Your task to perform on an android device: turn on sleep mode Image 0: 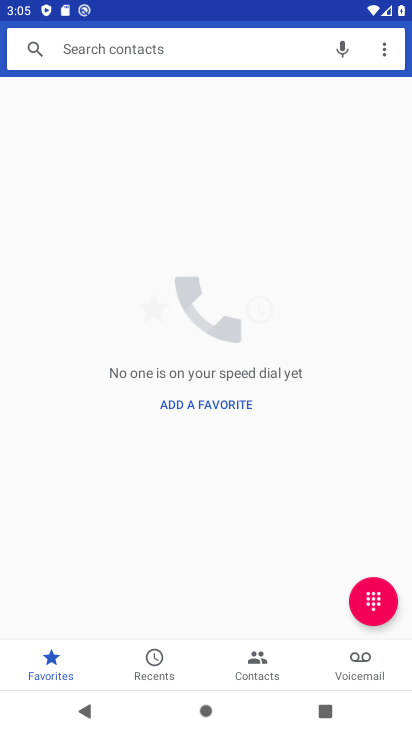
Step 0: press home button
Your task to perform on an android device: turn on sleep mode Image 1: 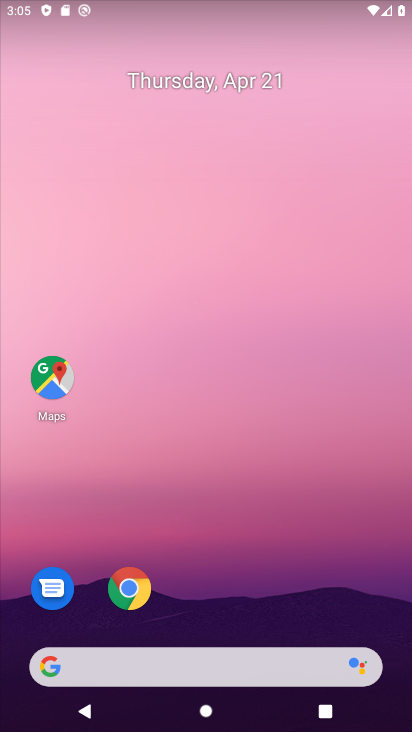
Step 1: drag from (171, 652) to (185, 6)
Your task to perform on an android device: turn on sleep mode Image 2: 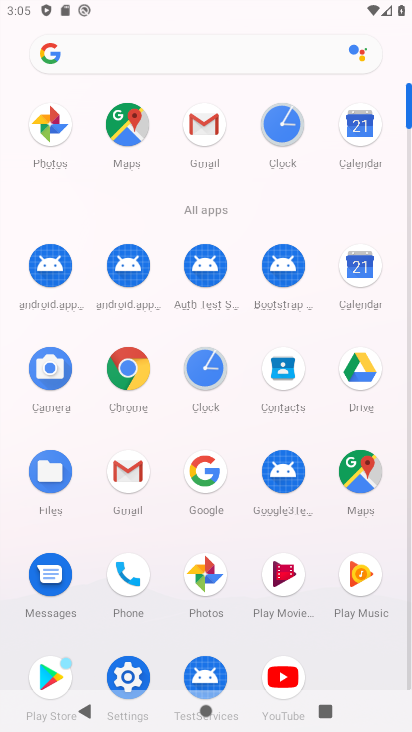
Step 2: drag from (140, 686) to (227, 657)
Your task to perform on an android device: turn on sleep mode Image 3: 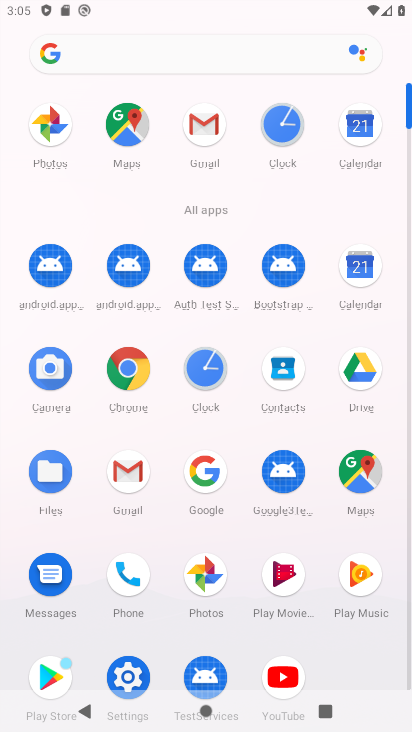
Step 3: click (123, 674)
Your task to perform on an android device: turn on sleep mode Image 4: 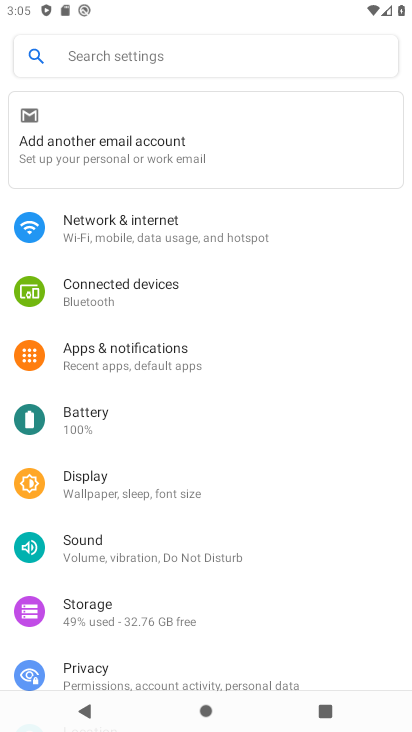
Step 4: click (146, 492)
Your task to perform on an android device: turn on sleep mode Image 5: 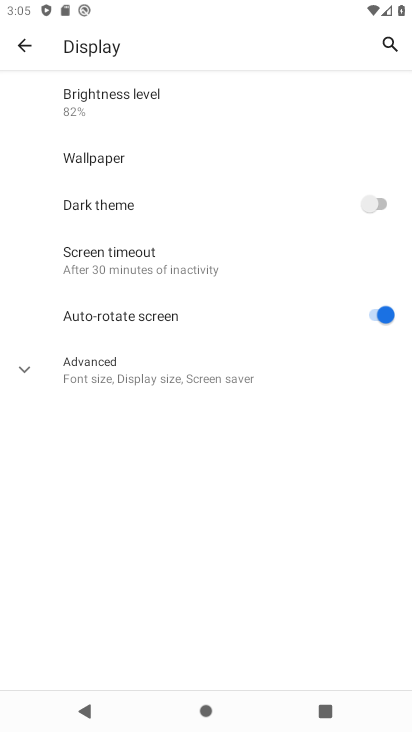
Step 5: click (201, 384)
Your task to perform on an android device: turn on sleep mode Image 6: 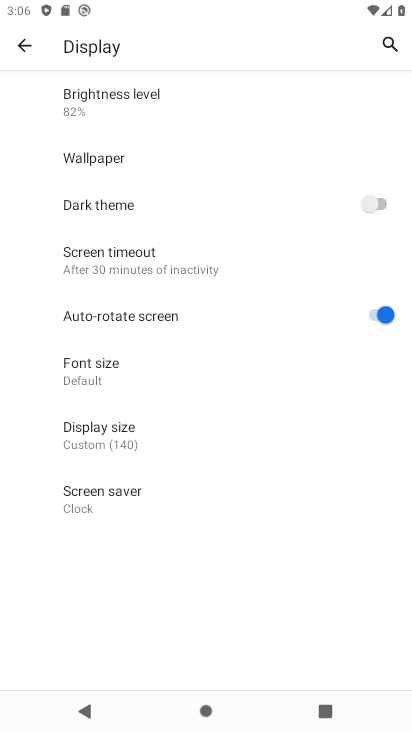
Step 6: task complete